Your task to perform on an android device: turn on priority inbox in the gmail app Image 0: 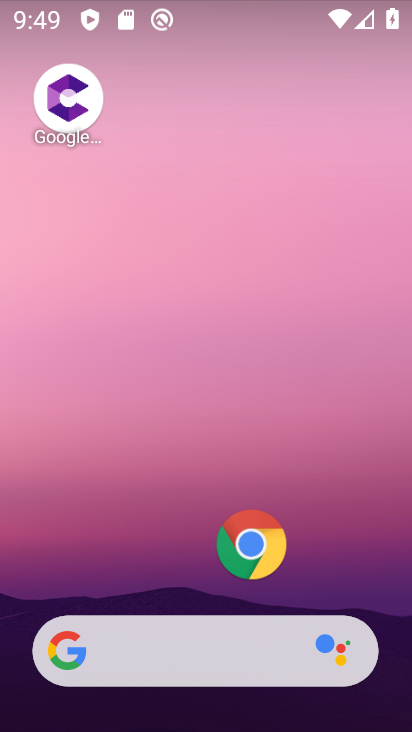
Step 0: drag from (190, 593) to (206, 16)
Your task to perform on an android device: turn on priority inbox in the gmail app Image 1: 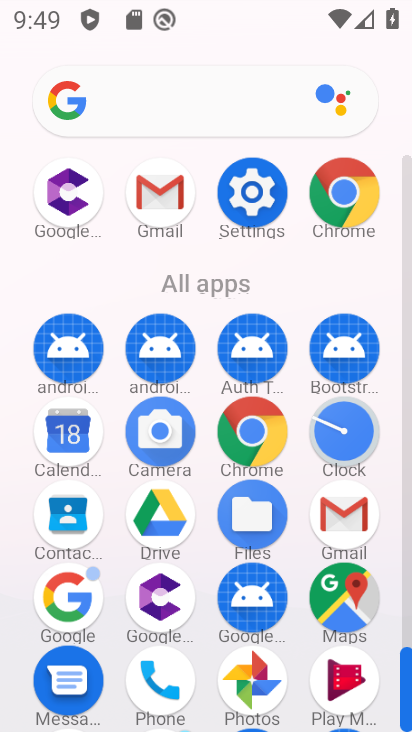
Step 1: click (341, 511)
Your task to perform on an android device: turn on priority inbox in the gmail app Image 2: 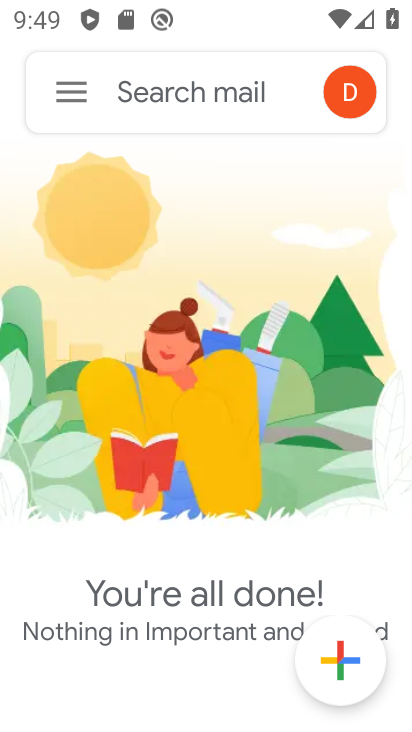
Step 2: click (72, 97)
Your task to perform on an android device: turn on priority inbox in the gmail app Image 3: 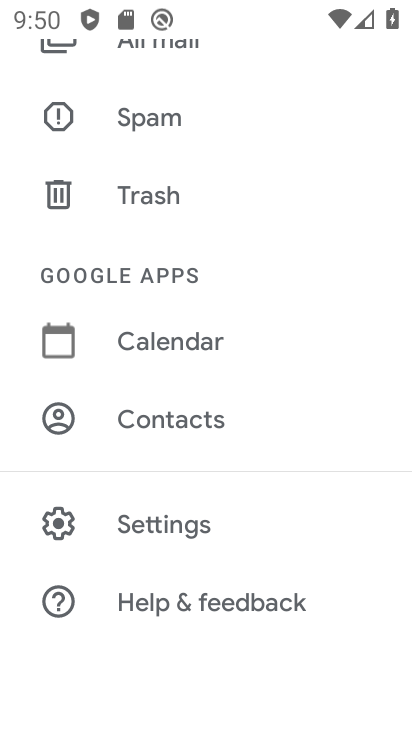
Step 3: click (147, 520)
Your task to perform on an android device: turn on priority inbox in the gmail app Image 4: 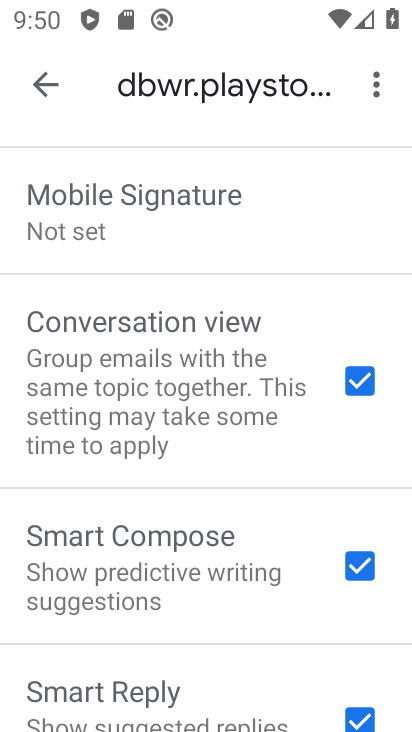
Step 4: click (52, 85)
Your task to perform on an android device: turn on priority inbox in the gmail app Image 5: 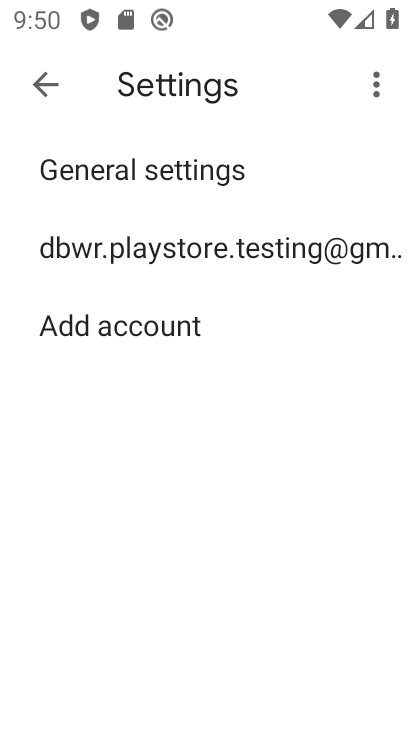
Step 5: click (175, 248)
Your task to perform on an android device: turn on priority inbox in the gmail app Image 6: 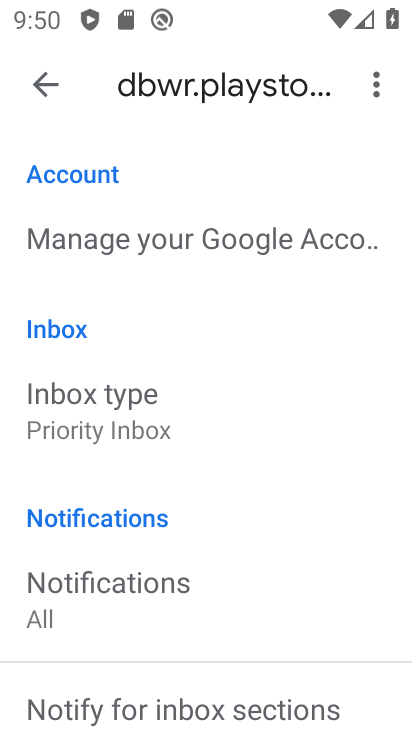
Step 6: click (170, 418)
Your task to perform on an android device: turn on priority inbox in the gmail app Image 7: 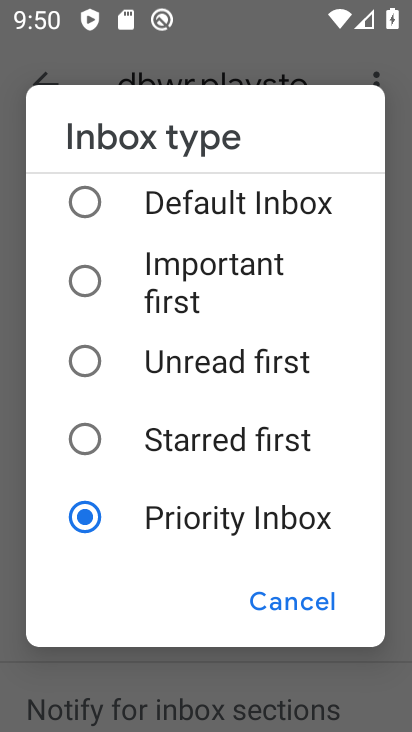
Step 7: click (170, 507)
Your task to perform on an android device: turn on priority inbox in the gmail app Image 8: 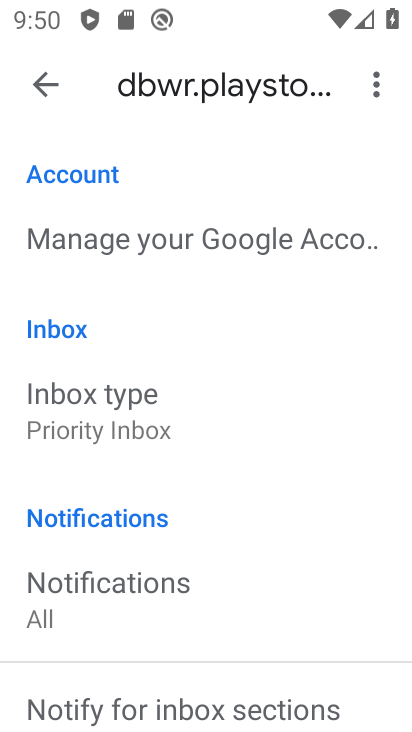
Step 8: task complete